Your task to perform on an android device: change alarm snooze length Image 0: 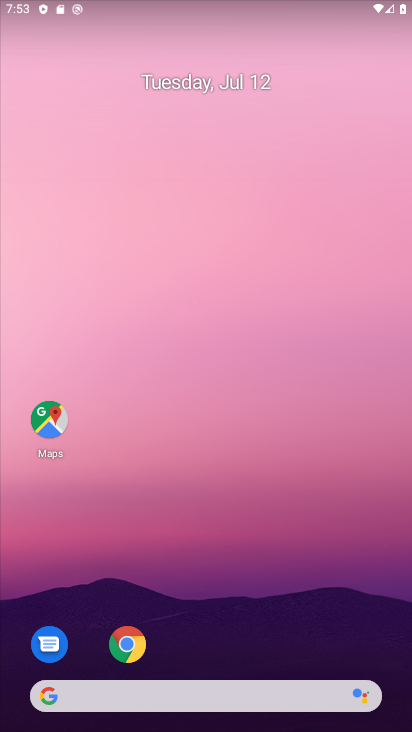
Step 0: press home button
Your task to perform on an android device: change alarm snooze length Image 1: 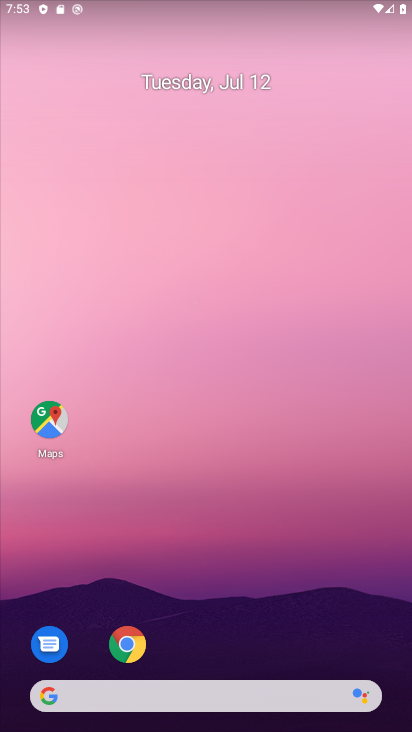
Step 1: drag from (227, 663) to (229, 46)
Your task to perform on an android device: change alarm snooze length Image 2: 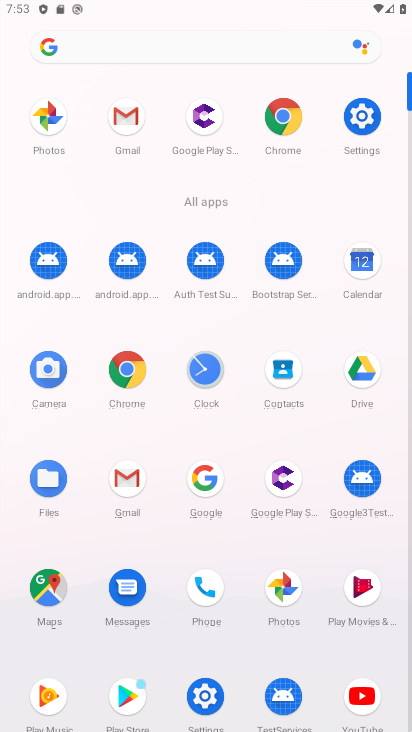
Step 2: click (208, 364)
Your task to perform on an android device: change alarm snooze length Image 3: 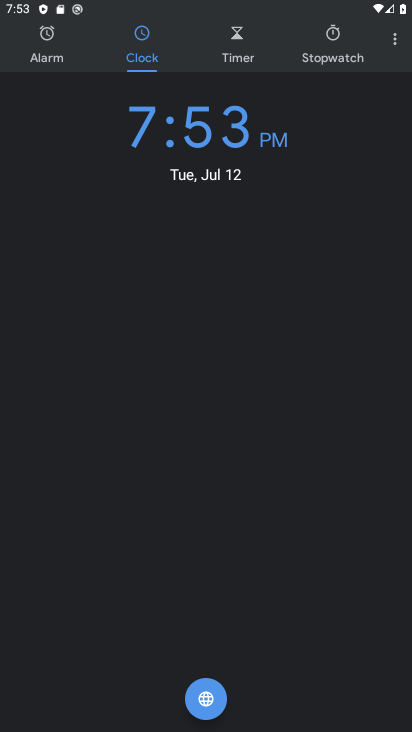
Step 3: click (397, 38)
Your task to perform on an android device: change alarm snooze length Image 4: 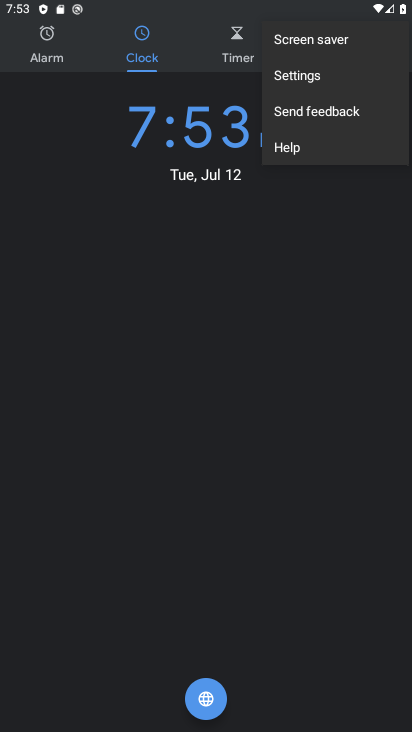
Step 4: click (331, 75)
Your task to perform on an android device: change alarm snooze length Image 5: 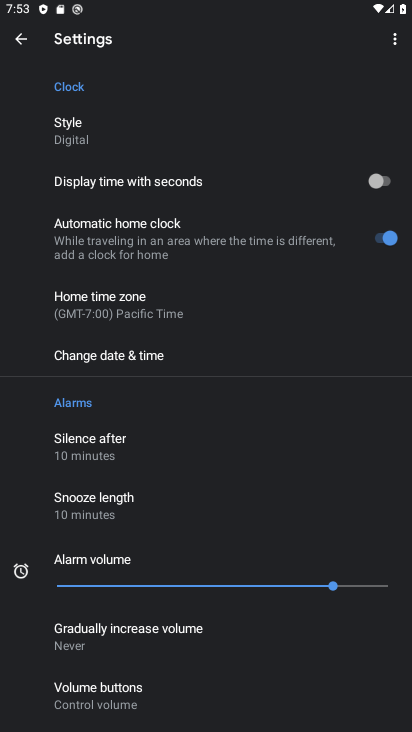
Step 5: click (148, 501)
Your task to perform on an android device: change alarm snooze length Image 6: 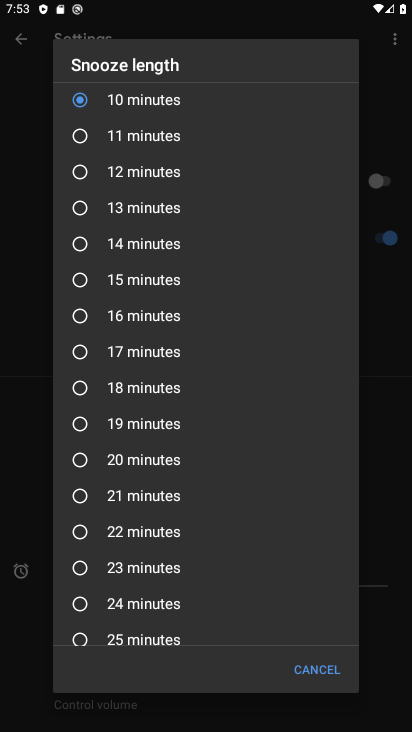
Step 6: drag from (130, 118) to (189, 354)
Your task to perform on an android device: change alarm snooze length Image 7: 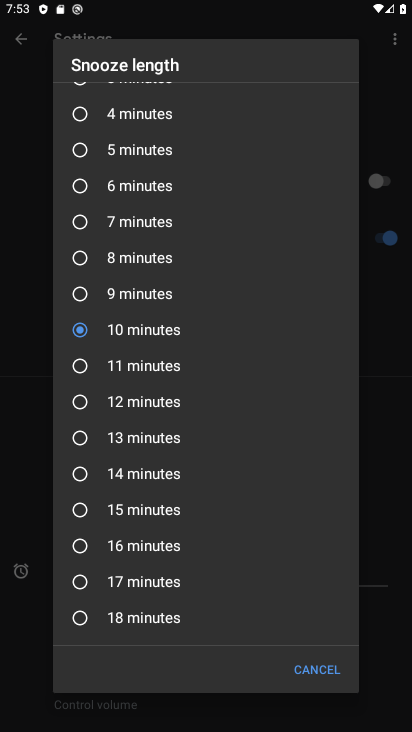
Step 7: click (79, 149)
Your task to perform on an android device: change alarm snooze length Image 8: 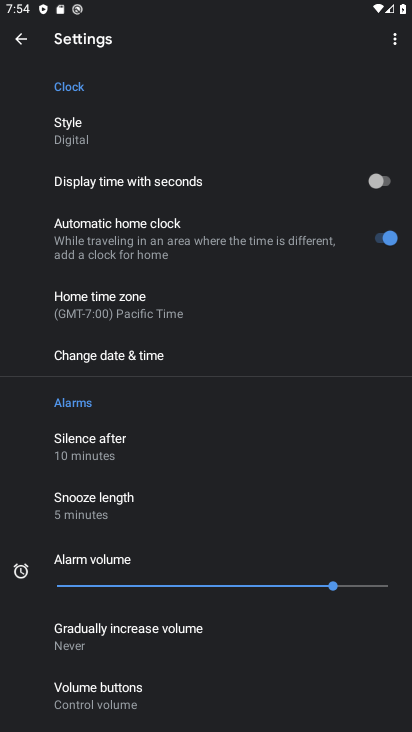
Step 8: task complete